Your task to perform on an android device: turn off smart reply in the gmail app Image 0: 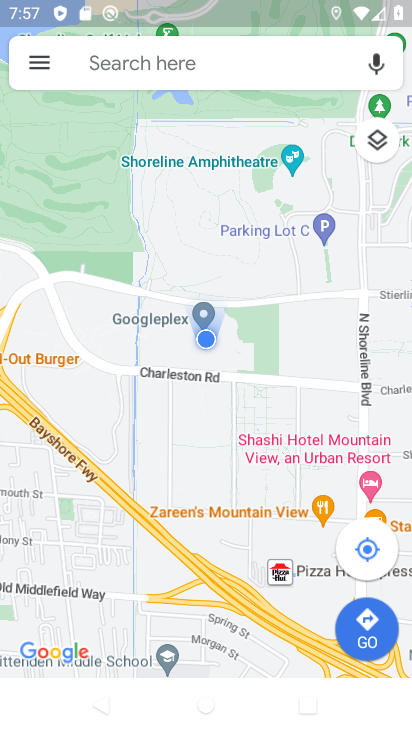
Step 0: press home button
Your task to perform on an android device: turn off smart reply in the gmail app Image 1: 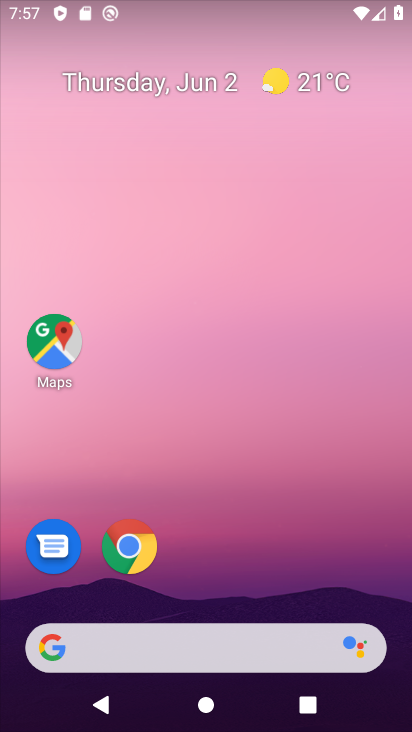
Step 1: drag from (233, 537) to (172, 16)
Your task to perform on an android device: turn off smart reply in the gmail app Image 2: 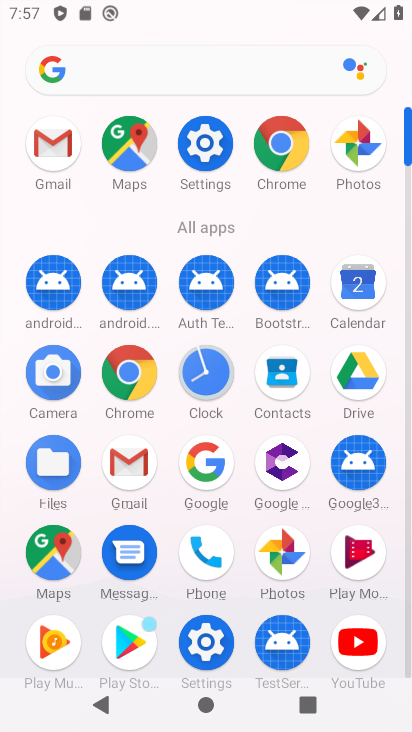
Step 2: click (69, 144)
Your task to perform on an android device: turn off smart reply in the gmail app Image 3: 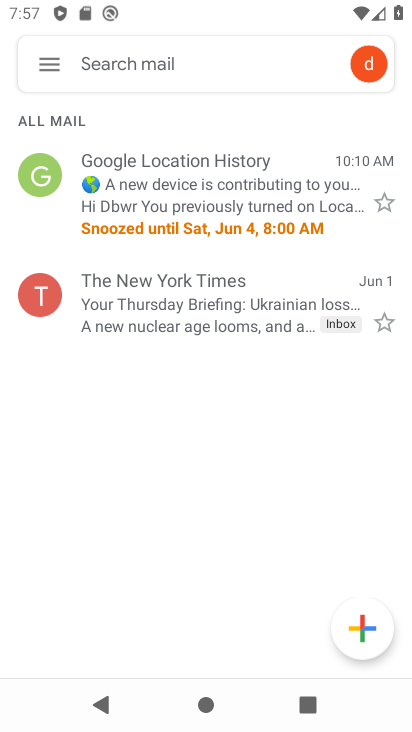
Step 3: click (49, 62)
Your task to perform on an android device: turn off smart reply in the gmail app Image 4: 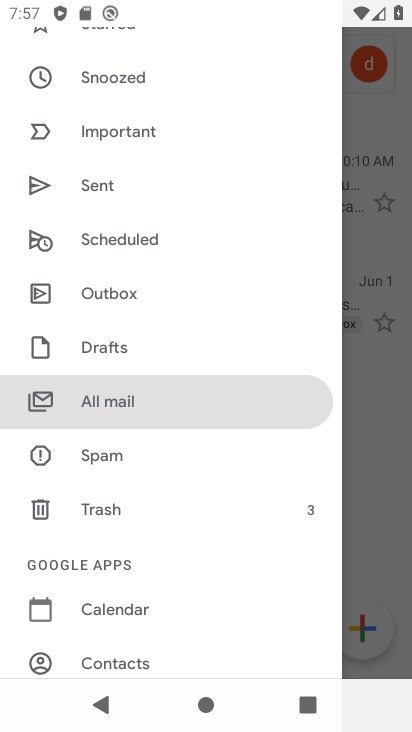
Step 4: drag from (199, 539) to (217, 204)
Your task to perform on an android device: turn off smart reply in the gmail app Image 5: 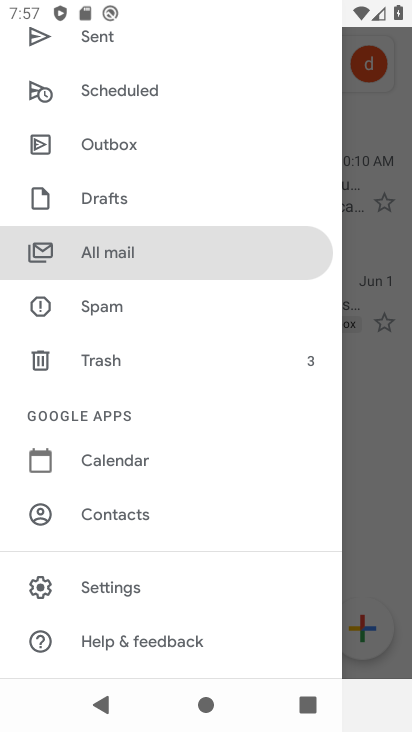
Step 5: click (133, 586)
Your task to perform on an android device: turn off smart reply in the gmail app Image 6: 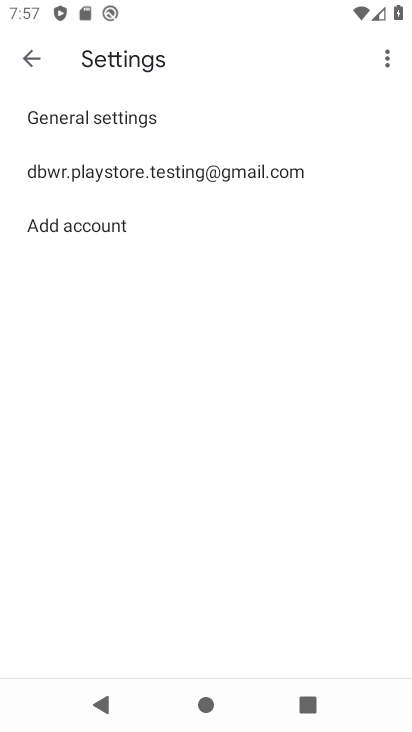
Step 6: click (195, 160)
Your task to perform on an android device: turn off smart reply in the gmail app Image 7: 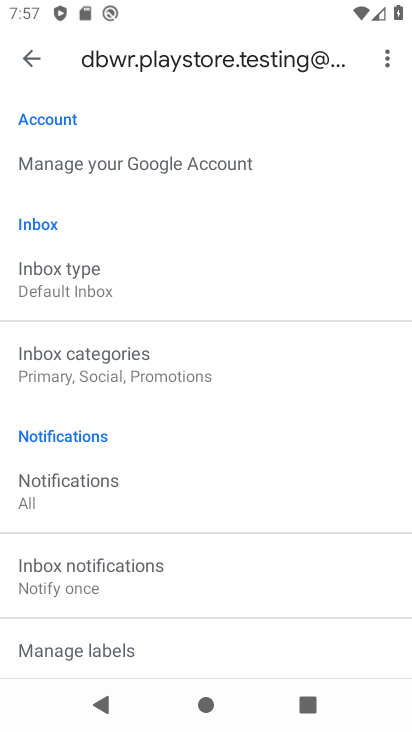
Step 7: drag from (262, 514) to (228, 155)
Your task to perform on an android device: turn off smart reply in the gmail app Image 8: 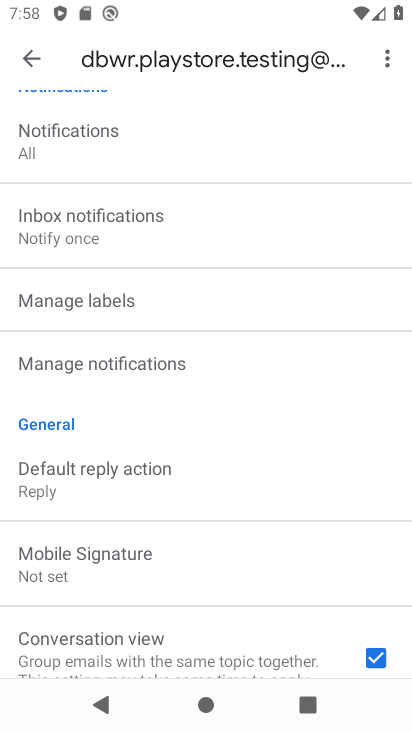
Step 8: drag from (228, 464) to (255, 140)
Your task to perform on an android device: turn off smart reply in the gmail app Image 9: 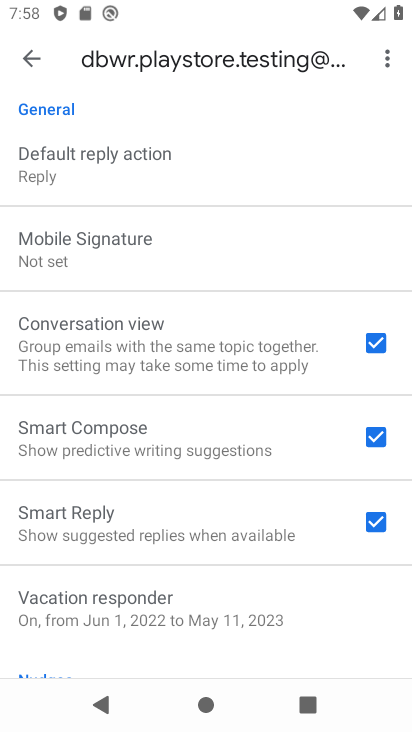
Step 9: click (372, 522)
Your task to perform on an android device: turn off smart reply in the gmail app Image 10: 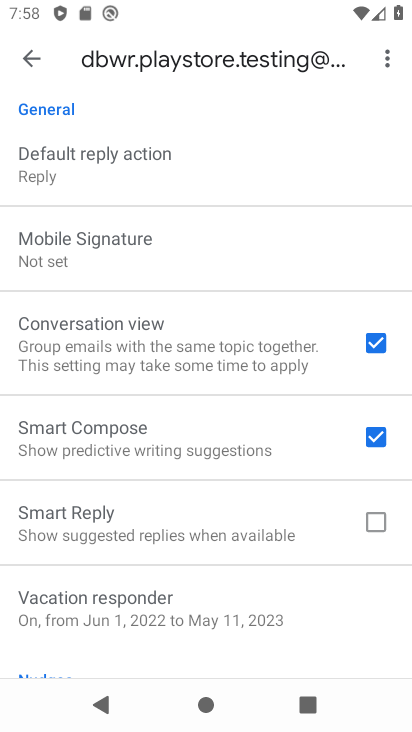
Step 10: task complete